Your task to perform on an android device: move a message to another label in the gmail app Image 0: 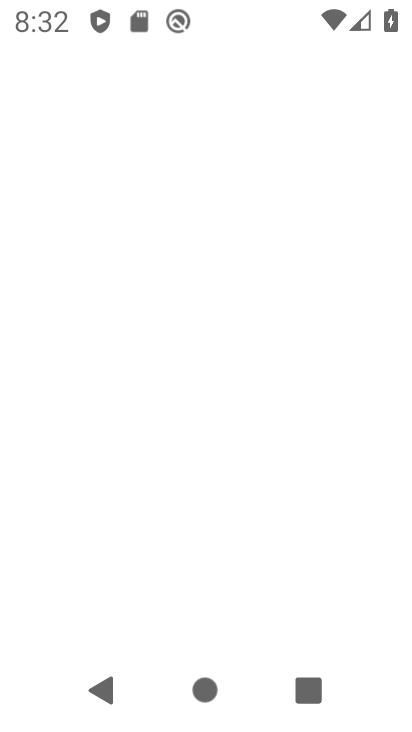
Step 0: press home button
Your task to perform on an android device: move a message to another label in the gmail app Image 1: 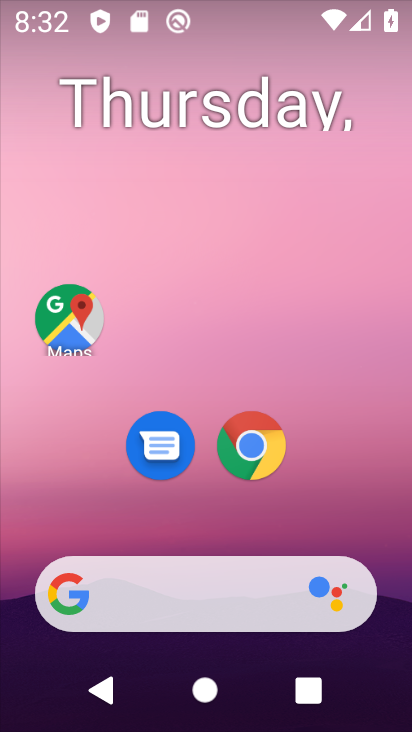
Step 1: drag from (249, 595) to (374, 88)
Your task to perform on an android device: move a message to another label in the gmail app Image 2: 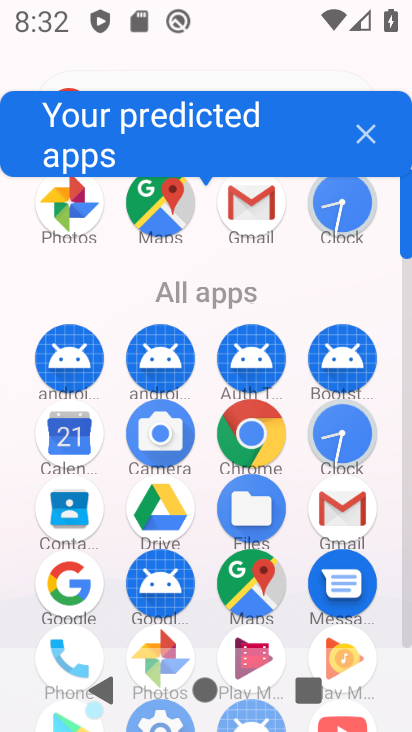
Step 2: drag from (96, 548) to (181, 322)
Your task to perform on an android device: move a message to another label in the gmail app Image 3: 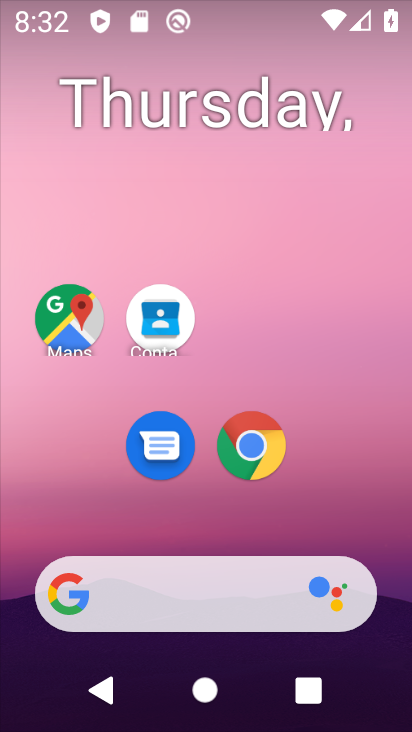
Step 3: drag from (266, 500) to (332, 106)
Your task to perform on an android device: move a message to another label in the gmail app Image 4: 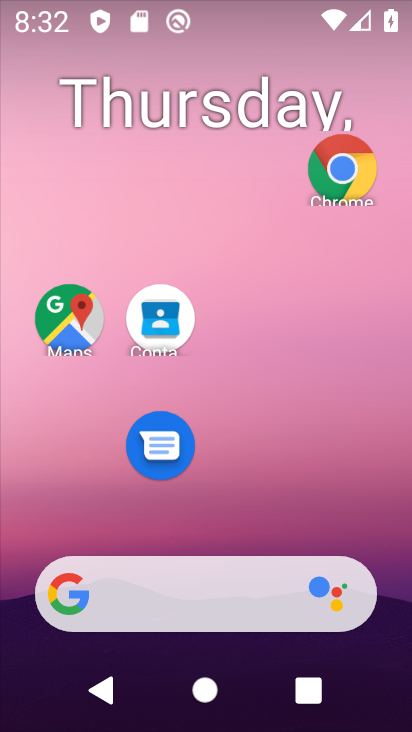
Step 4: drag from (296, 554) to (359, 87)
Your task to perform on an android device: move a message to another label in the gmail app Image 5: 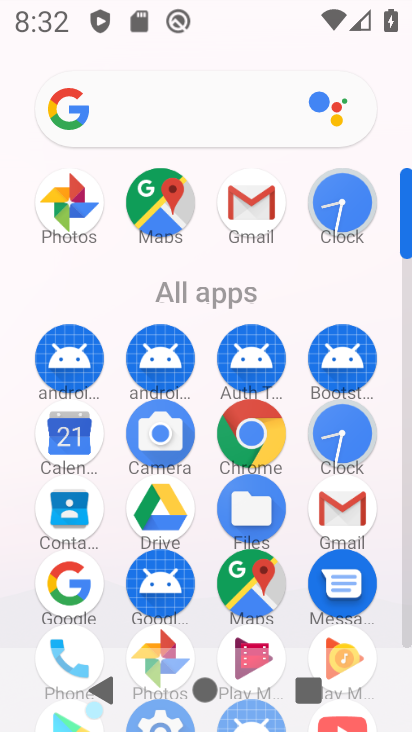
Step 5: click (263, 199)
Your task to perform on an android device: move a message to another label in the gmail app Image 6: 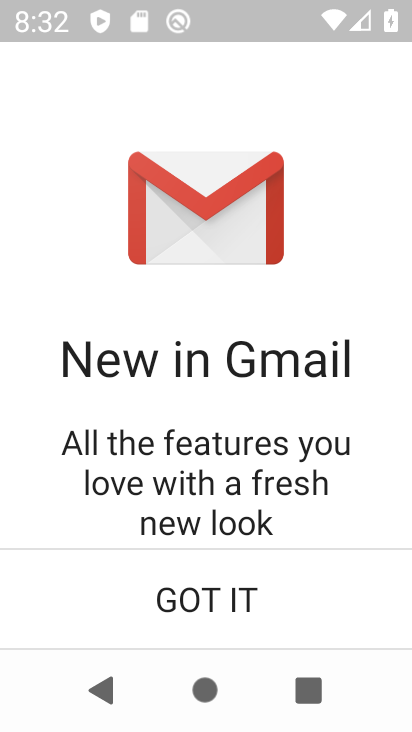
Step 6: click (181, 564)
Your task to perform on an android device: move a message to another label in the gmail app Image 7: 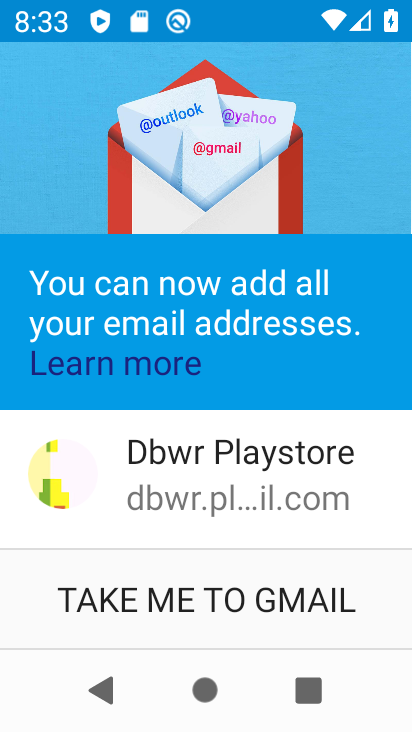
Step 7: click (238, 596)
Your task to perform on an android device: move a message to another label in the gmail app Image 8: 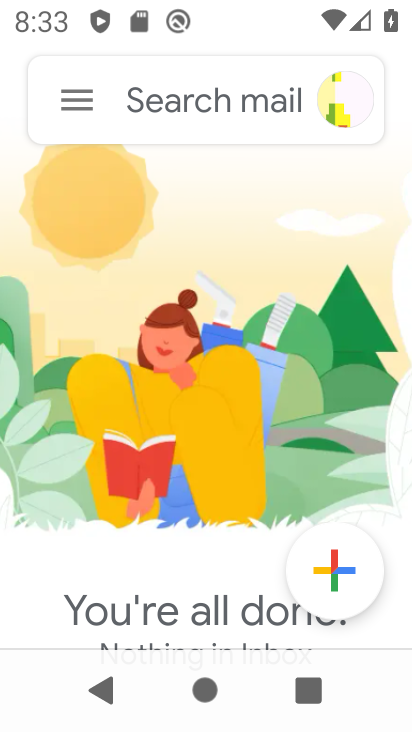
Step 8: click (88, 110)
Your task to perform on an android device: move a message to another label in the gmail app Image 9: 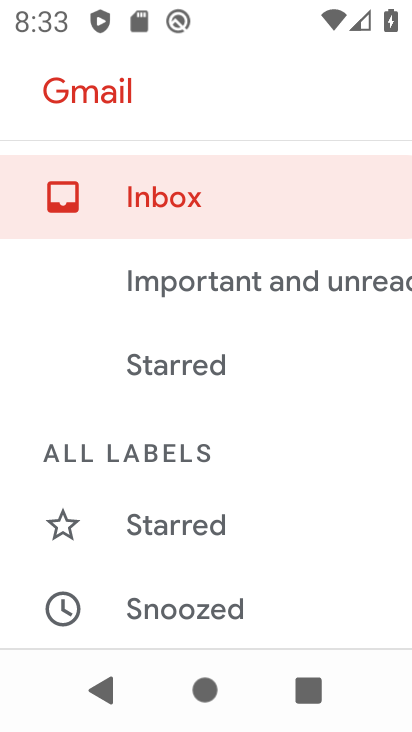
Step 9: drag from (137, 543) to (313, 147)
Your task to perform on an android device: move a message to another label in the gmail app Image 10: 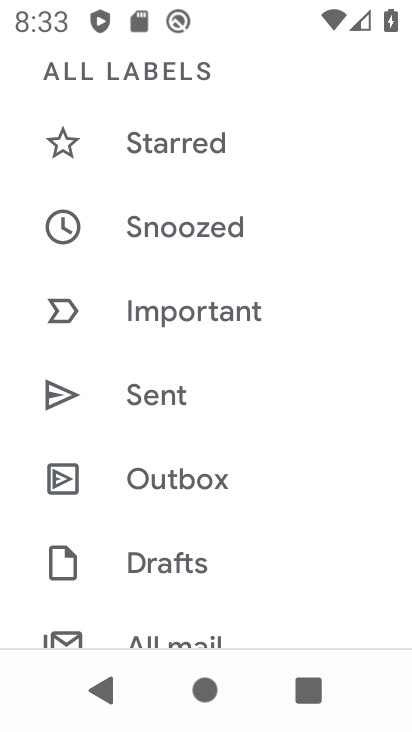
Step 10: drag from (118, 538) to (269, 203)
Your task to perform on an android device: move a message to another label in the gmail app Image 11: 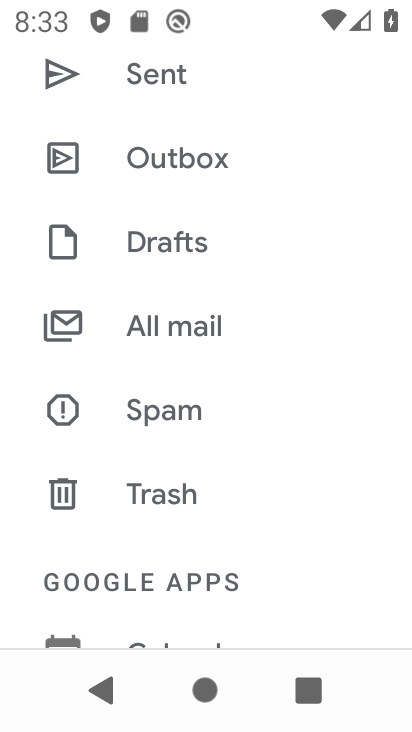
Step 11: drag from (134, 414) to (260, 169)
Your task to perform on an android device: move a message to another label in the gmail app Image 12: 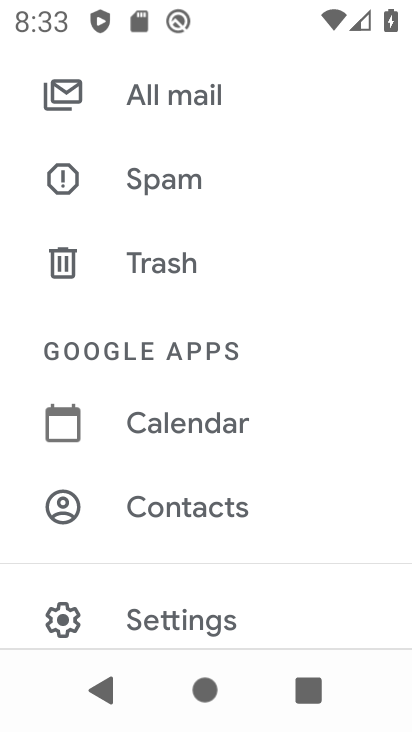
Step 12: click (178, 604)
Your task to perform on an android device: move a message to another label in the gmail app Image 13: 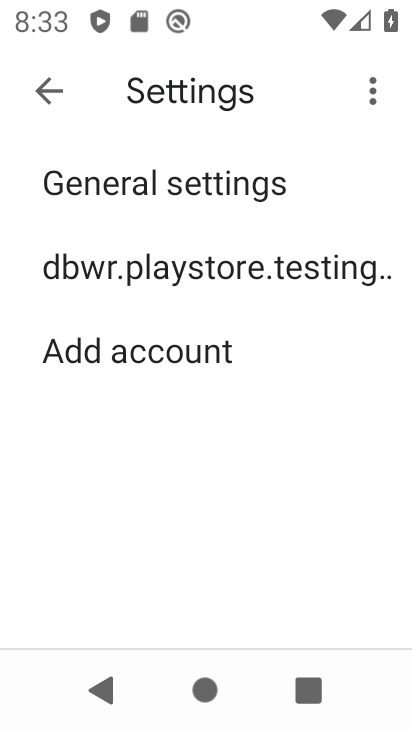
Step 13: click (198, 267)
Your task to perform on an android device: move a message to another label in the gmail app Image 14: 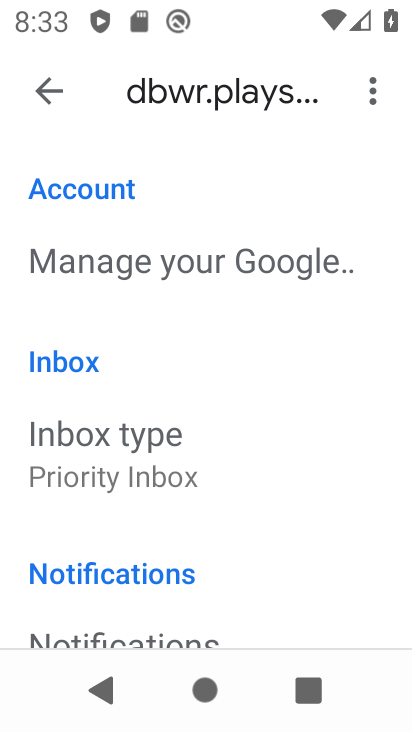
Step 14: drag from (167, 556) to (232, 302)
Your task to perform on an android device: move a message to another label in the gmail app Image 15: 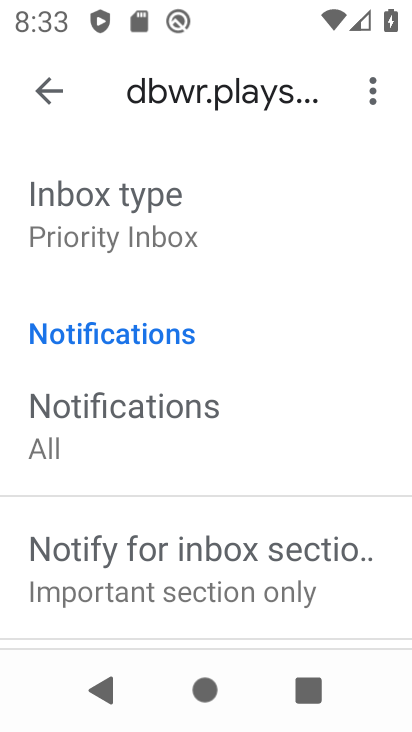
Step 15: drag from (185, 550) to (237, 204)
Your task to perform on an android device: move a message to another label in the gmail app Image 16: 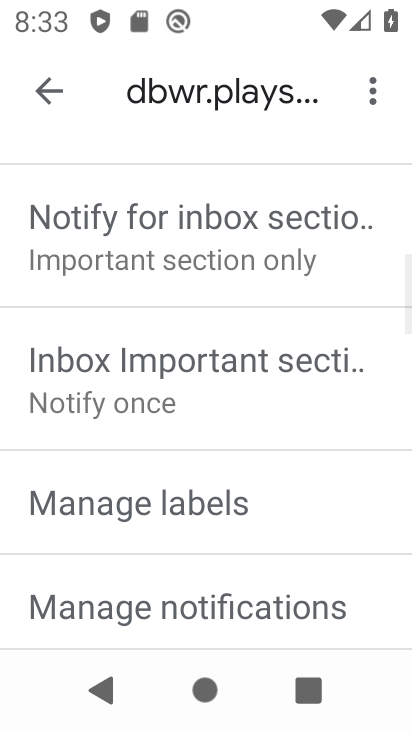
Step 16: click (200, 501)
Your task to perform on an android device: move a message to another label in the gmail app Image 17: 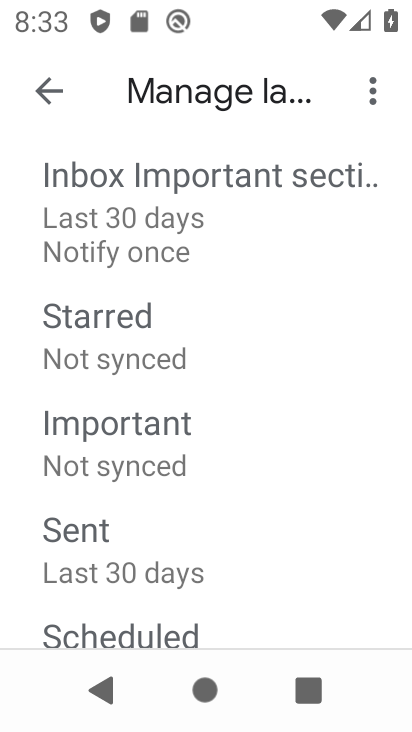
Step 17: click (196, 446)
Your task to perform on an android device: move a message to another label in the gmail app Image 18: 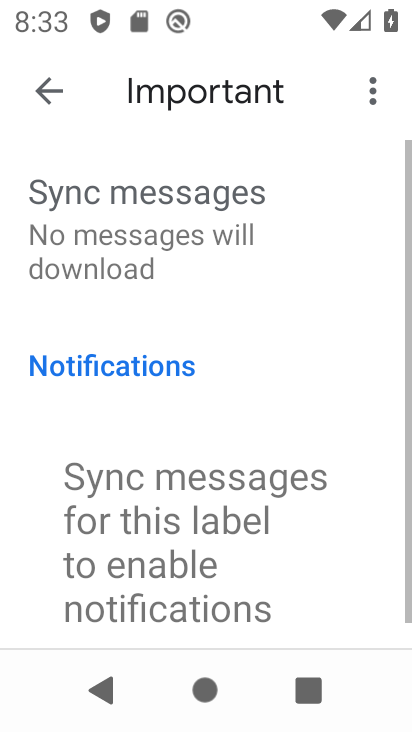
Step 18: task complete